Your task to perform on an android device: Open Maps and search for coffee Image 0: 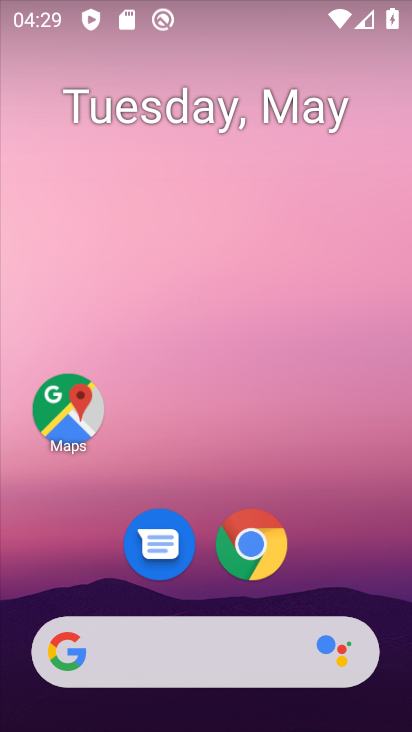
Step 0: click (62, 408)
Your task to perform on an android device: Open Maps and search for coffee Image 1: 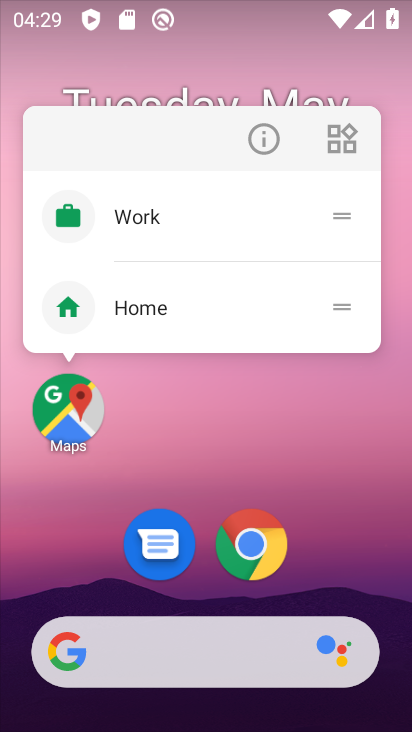
Step 1: click (62, 408)
Your task to perform on an android device: Open Maps and search for coffee Image 2: 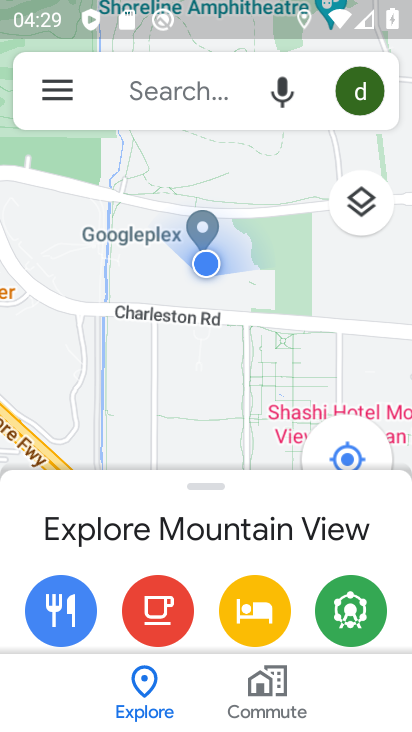
Step 2: click (199, 89)
Your task to perform on an android device: Open Maps and search for coffee Image 3: 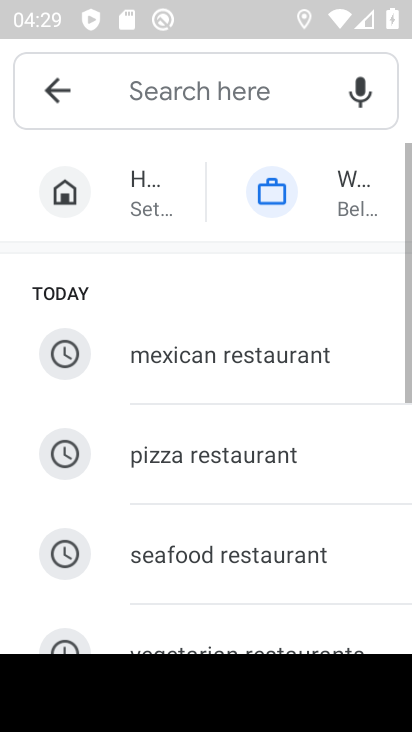
Step 3: drag from (160, 572) to (190, 232)
Your task to perform on an android device: Open Maps and search for coffee Image 4: 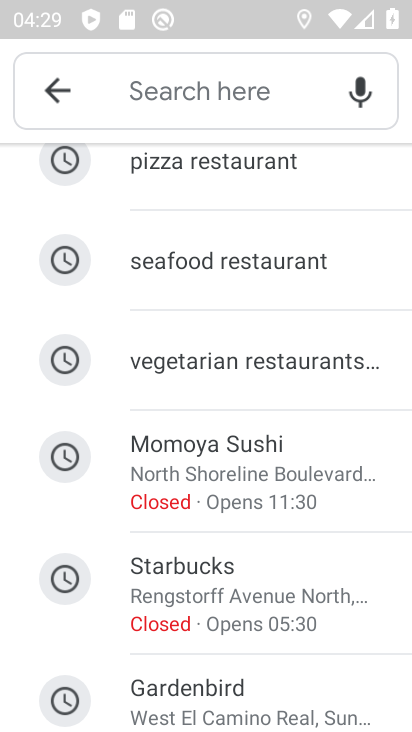
Step 4: drag from (166, 612) to (197, 217)
Your task to perform on an android device: Open Maps and search for coffee Image 5: 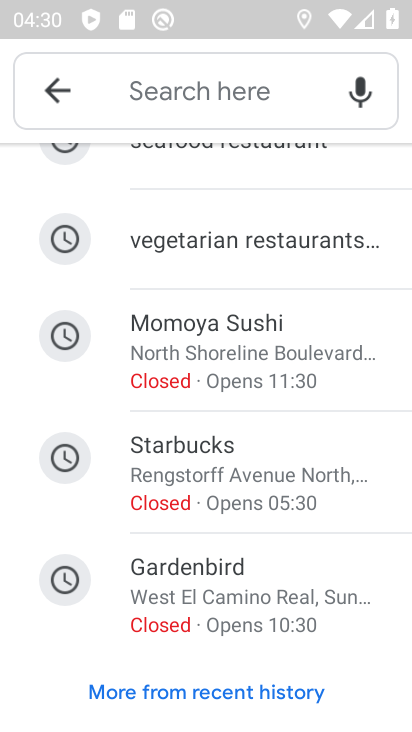
Step 5: drag from (290, 213) to (283, 616)
Your task to perform on an android device: Open Maps and search for coffee Image 6: 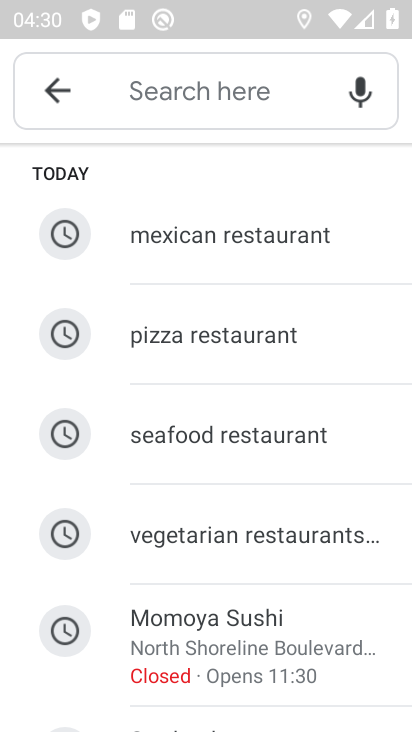
Step 6: drag from (204, 623) to (204, 227)
Your task to perform on an android device: Open Maps and search for coffee Image 7: 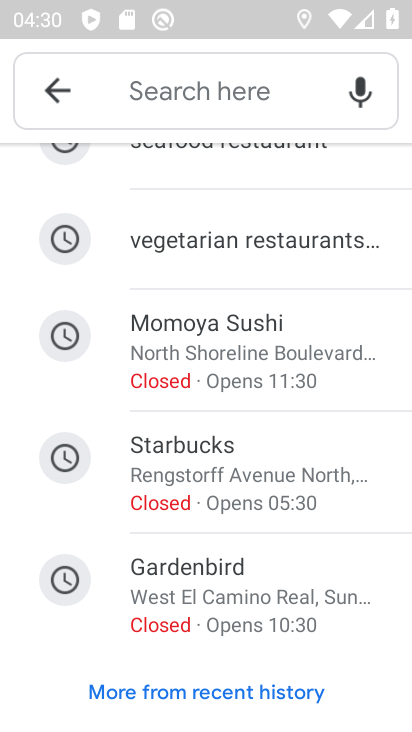
Step 7: click (182, 690)
Your task to perform on an android device: Open Maps and search for coffee Image 8: 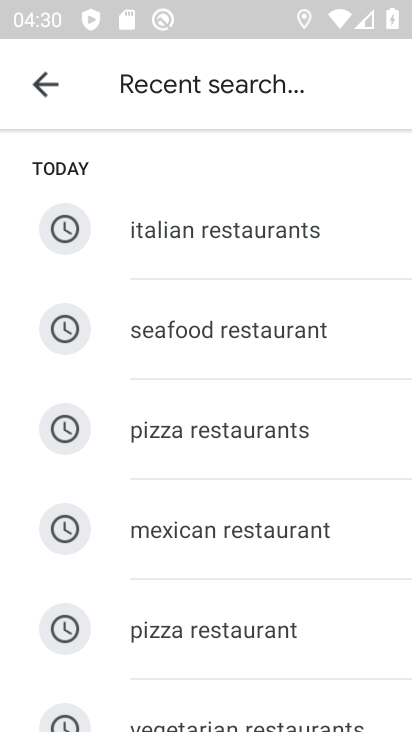
Step 8: drag from (175, 669) to (175, 189)
Your task to perform on an android device: Open Maps and search for coffee Image 9: 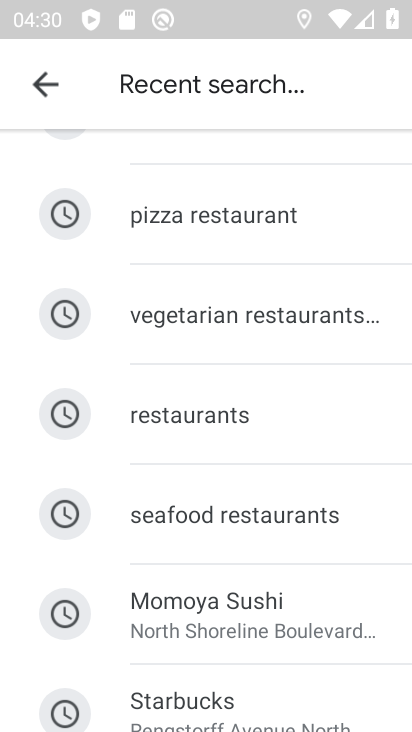
Step 9: drag from (170, 653) to (169, 298)
Your task to perform on an android device: Open Maps and search for coffee Image 10: 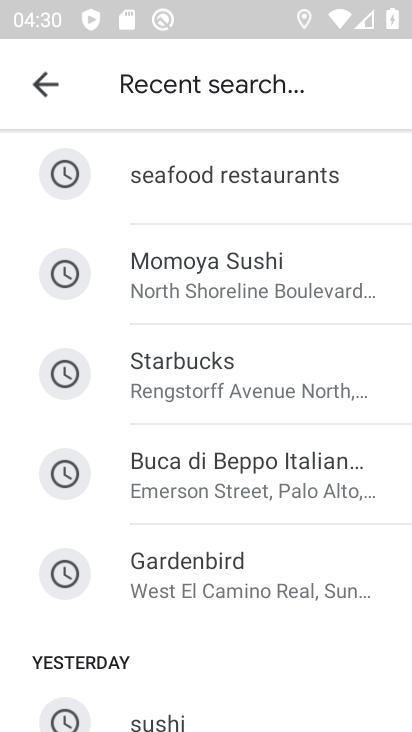
Step 10: drag from (183, 653) to (183, 273)
Your task to perform on an android device: Open Maps and search for coffee Image 11: 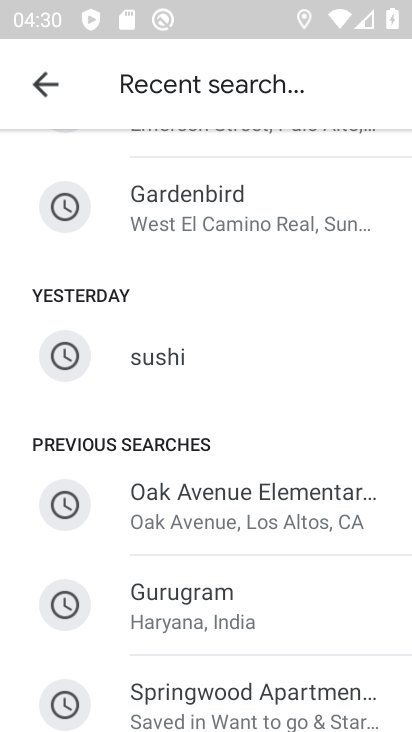
Step 11: drag from (186, 653) to (186, 307)
Your task to perform on an android device: Open Maps and search for coffee Image 12: 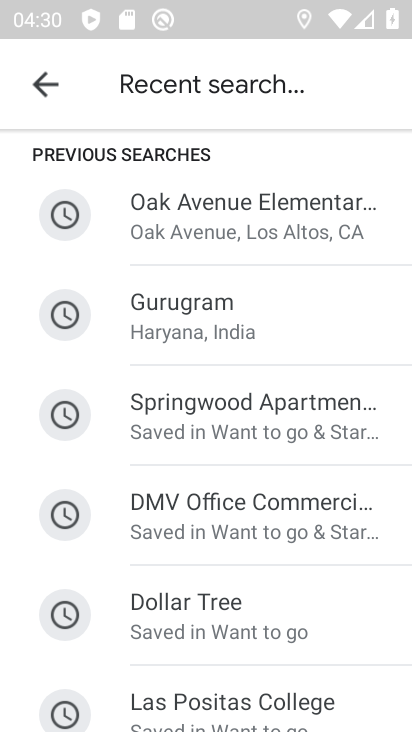
Step 12: type "coff"
Your task to perform on an android device: Open Maps and search for coffee Image 13: 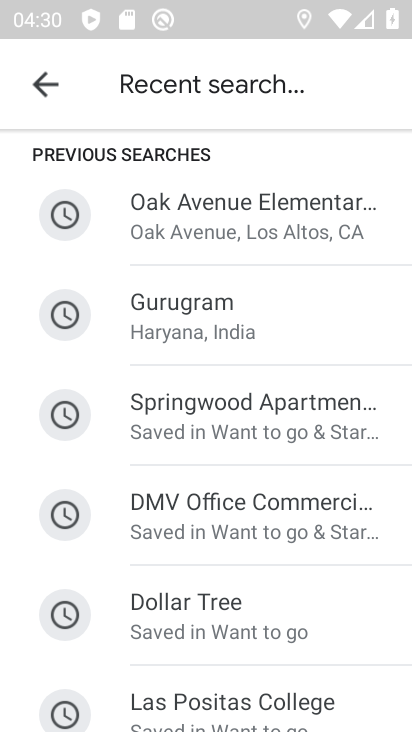
Step 13: click (41, 75)
Your task to perform on an android device: Open Maps and search for coffee Image 14: 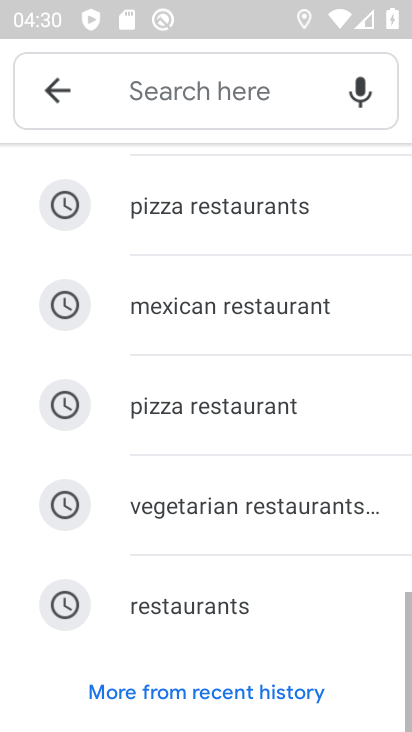
Step 14: click (144, 92)
Your task to perform on an android device: Open Maps and search for coffee Image 15: 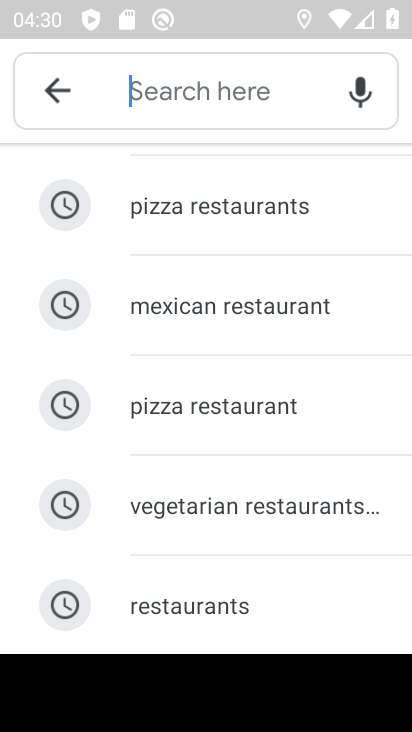
Step 15: type "coffee"
Your task to perform on an android device: Open Maps and search for coffee Image 16: 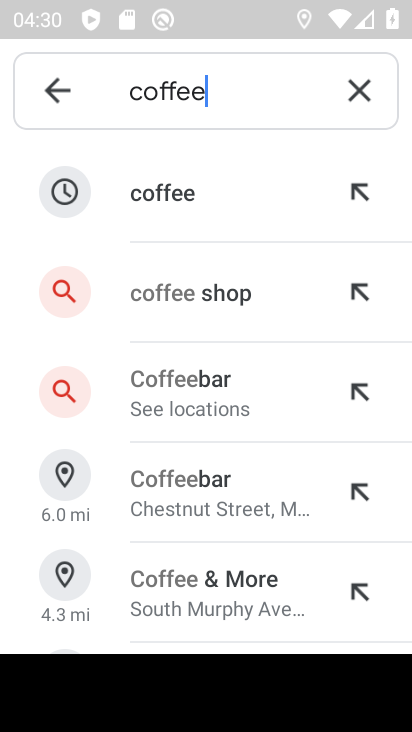
Step 16: click (169, 190)
Your task to perform on an android device: Open Maps and search for coffee Image 17: 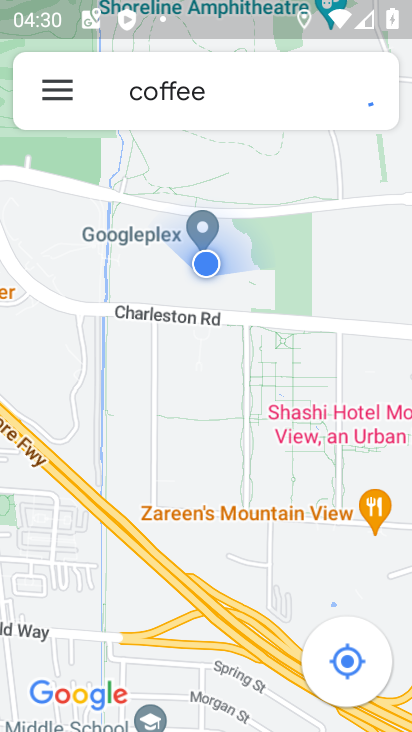
Step 17: task complete